Your task to perform on an android device: Go to internet settings Image 0: 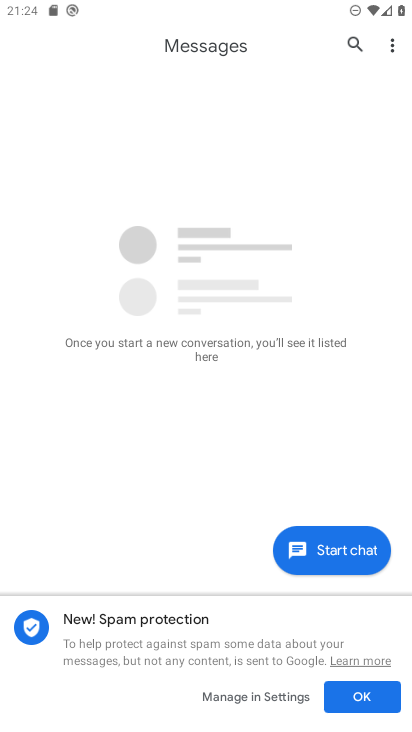
Step 0: press home button
Your task to perform on an android device: Go to internet settings Image 1: 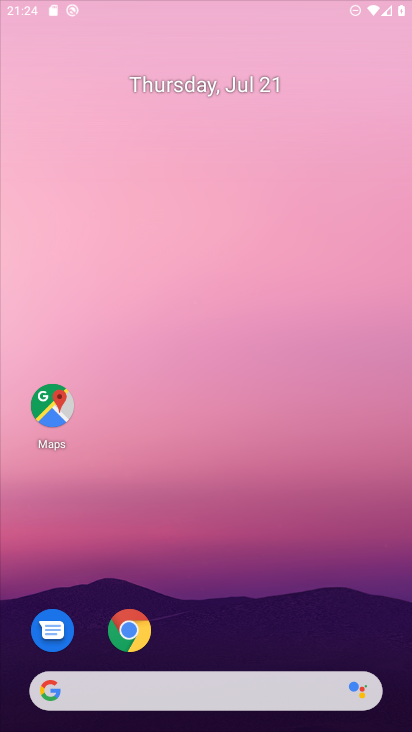
Step 1: drag from (310, 635) to (252, 132)
Your task to perform on an android device: Go to internet settings Image 2: 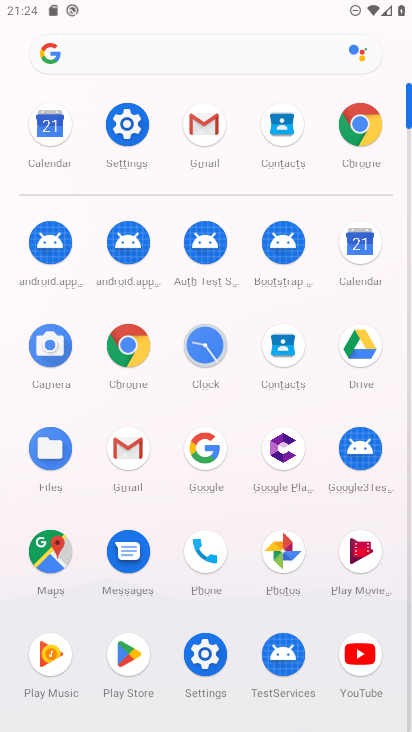
Step 2: click (119, 118)
Your task to perform on an android device: Go to internet settings Image 3: 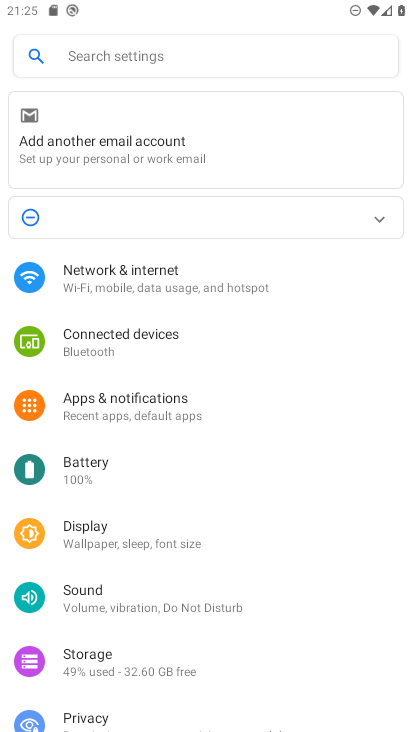
Step 3: click (142, 275)
Your task to perform on an android device: Go to internet settings Image 4: 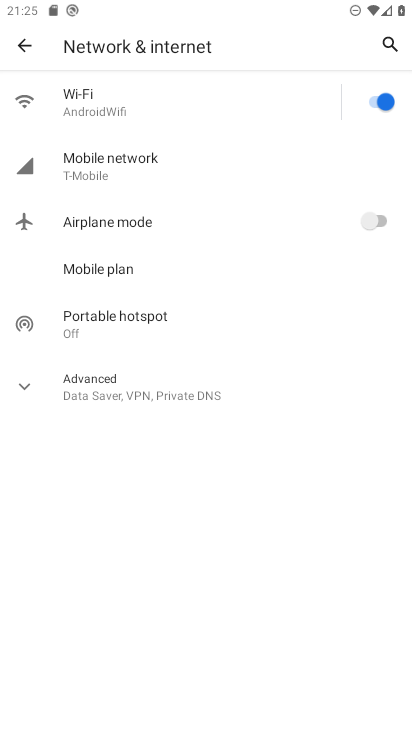
Step 4: click (131, 377)
Your task to perform on an android device: Go to internet settings Image 5: 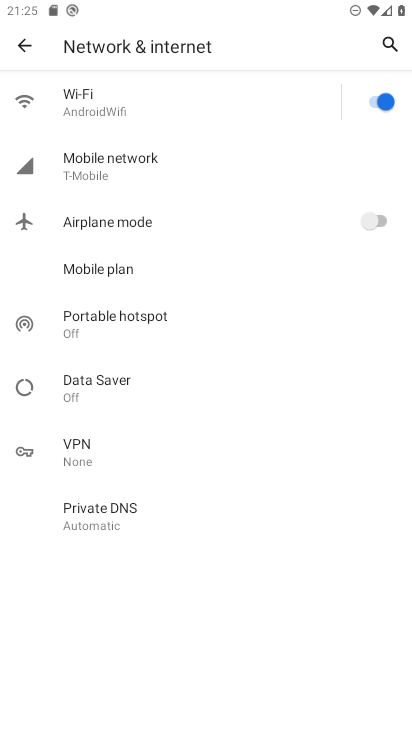
Step 5: task complete